Your task to perform on an android device: toggle javascript in the chrome app Image 0: 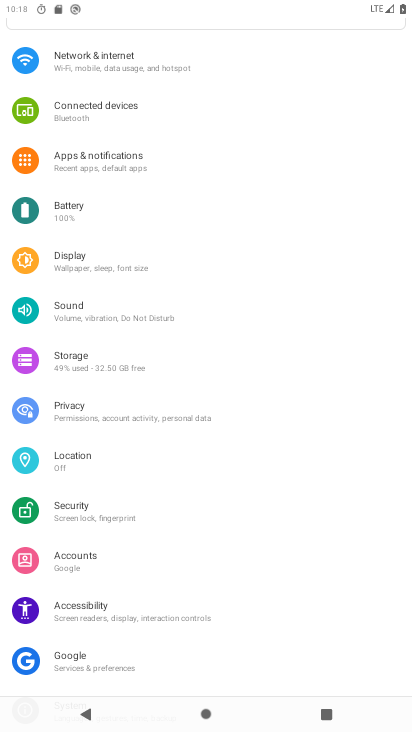
Step 0: press home button
Your task to perform on an android device: toggle javascript in the chrome app Image 1: 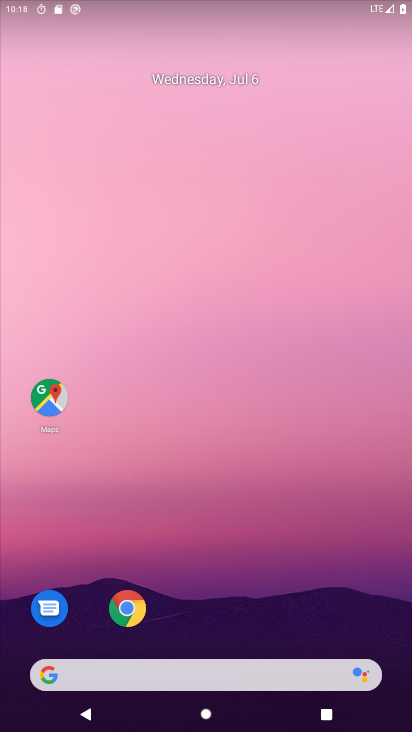
Step 1: drag from (205, 597) to (224, 4)
Your task to perform on an android device: toggle javascript in the chrome app Image 2: 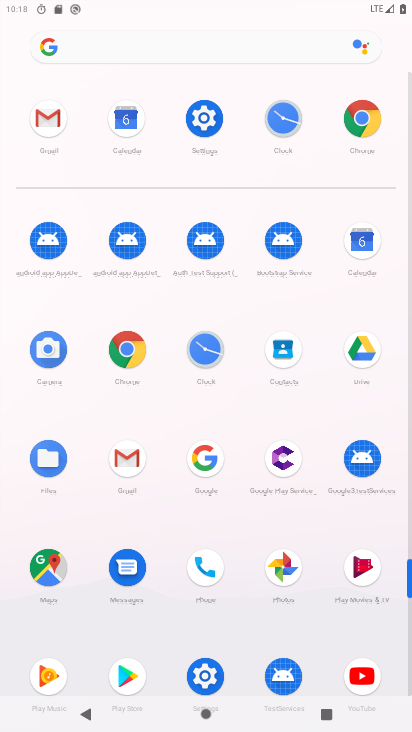
Step 2: click (120, 340)
Your task to perform on an android device: toggle javascript in the chrome app Image 3: 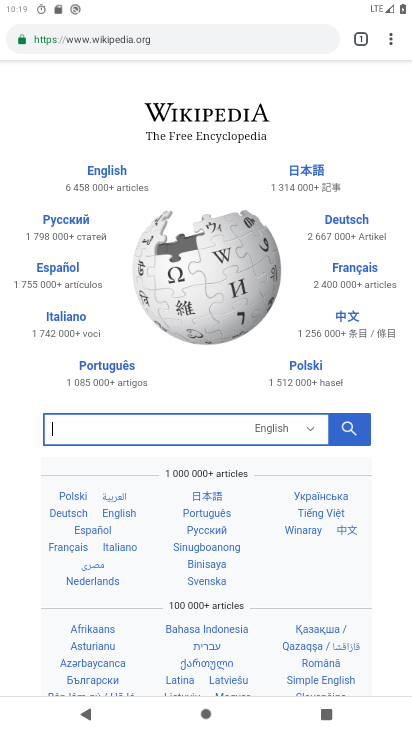
Step 3: click (393, 42)
Your task to perform on an android device: toggle javascript in the chrome app Image 4: 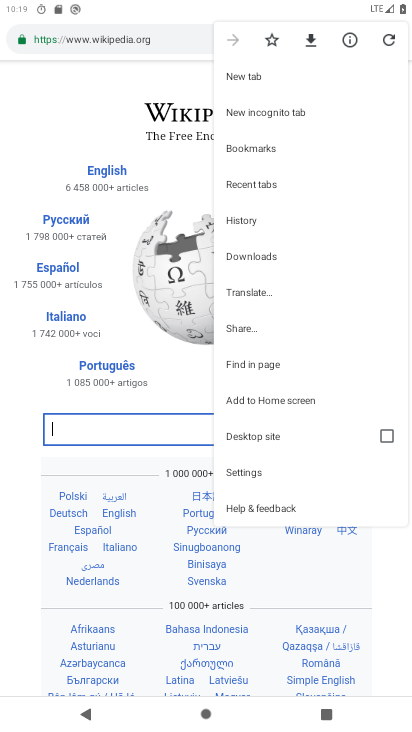
Step 4: click (251, 473)
Your task to perform on an android device: toggle javascript in the chrome app Image 5: 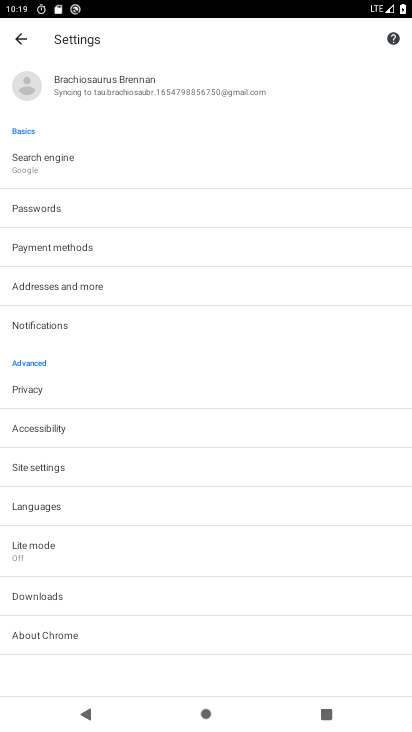
Step 5: click (70, 468)
Your task to perform on an android device: toggle javascript in the chrome app Image 6: 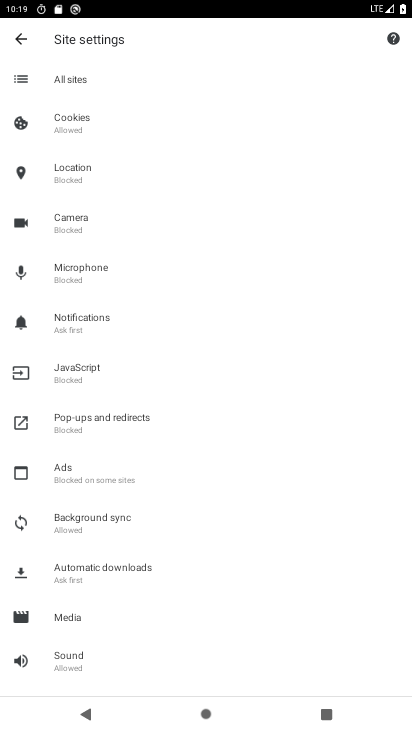
Step 6: click (93, 375)
Your task to perform on an android device: toggle javascript in the chrome app Image 7: 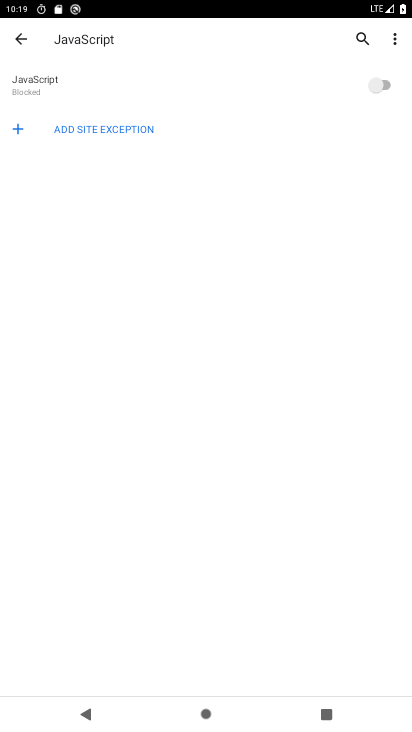
Step 7: click (397, 83)
Your task to perform on an android device: toggle javascript in the chrome app Image 8: 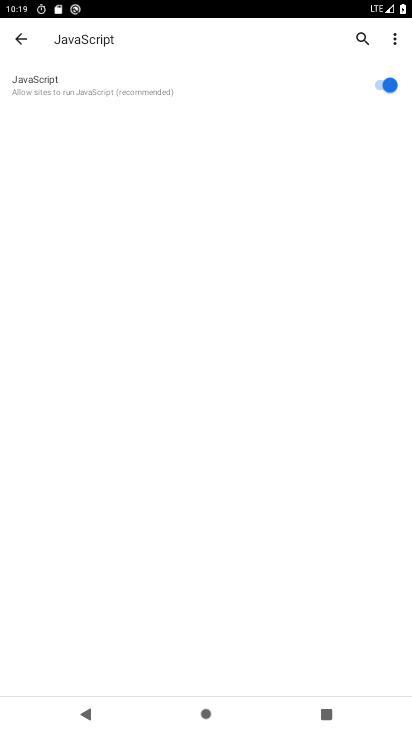
Step 8: task complete